Your task to perform on an android device: Go to Google maps Image 0: 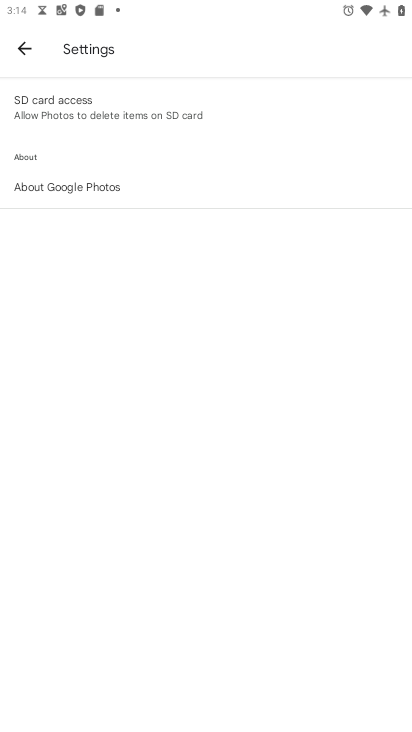
Step 0: press home button
Your task to perform on an android device: Go to Google maps Image 1: 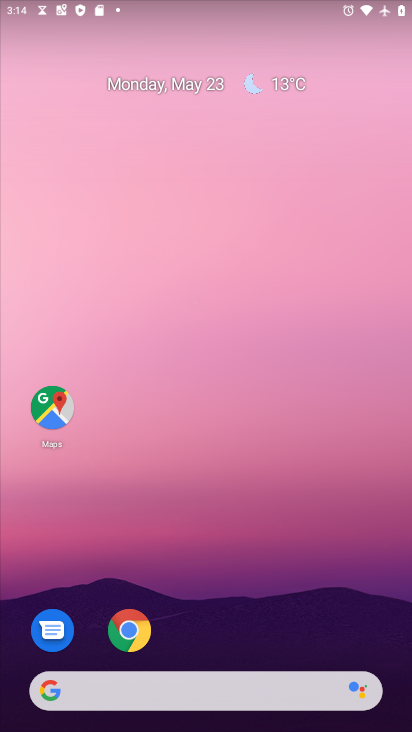
Step 1: click (57, 400)
Your task to perform on an android device: Go to Google maps Image 2: 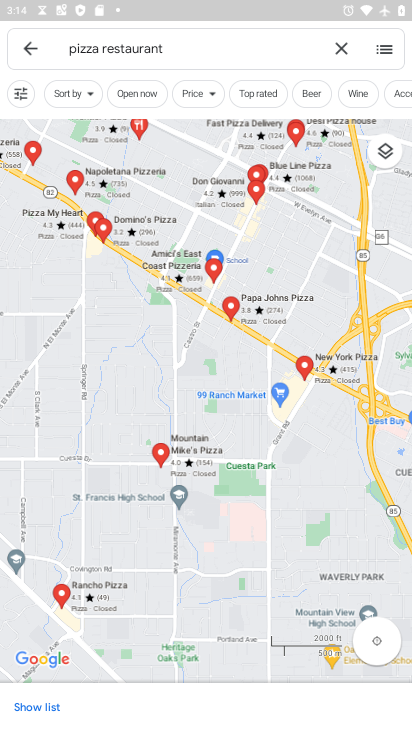
Step 2: task complete